Your task to perform on an android device: toggle airplane mode Image 0: 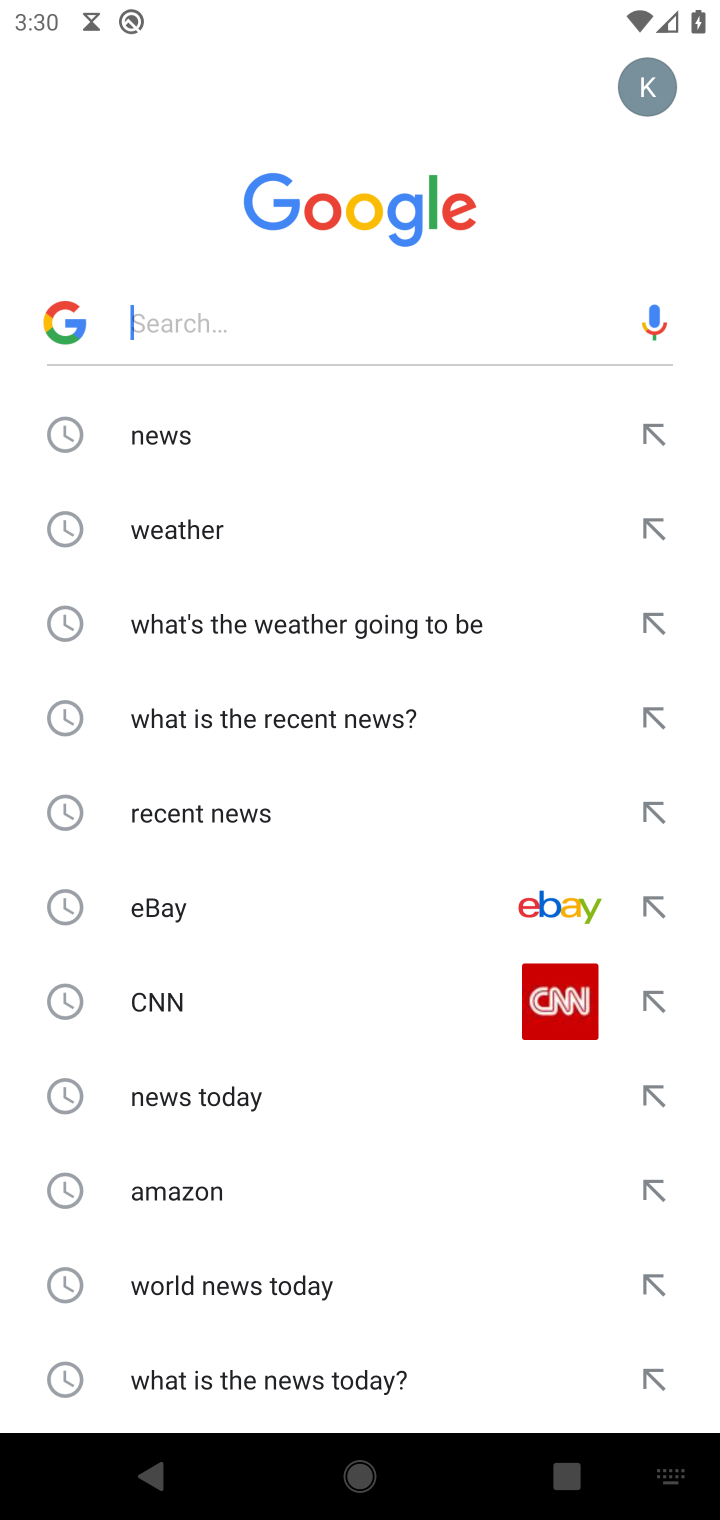
Step 0: drag from (507, 27) to (618, 1120)
Your task to perform on an android device: toggle airplane mode Image 1: 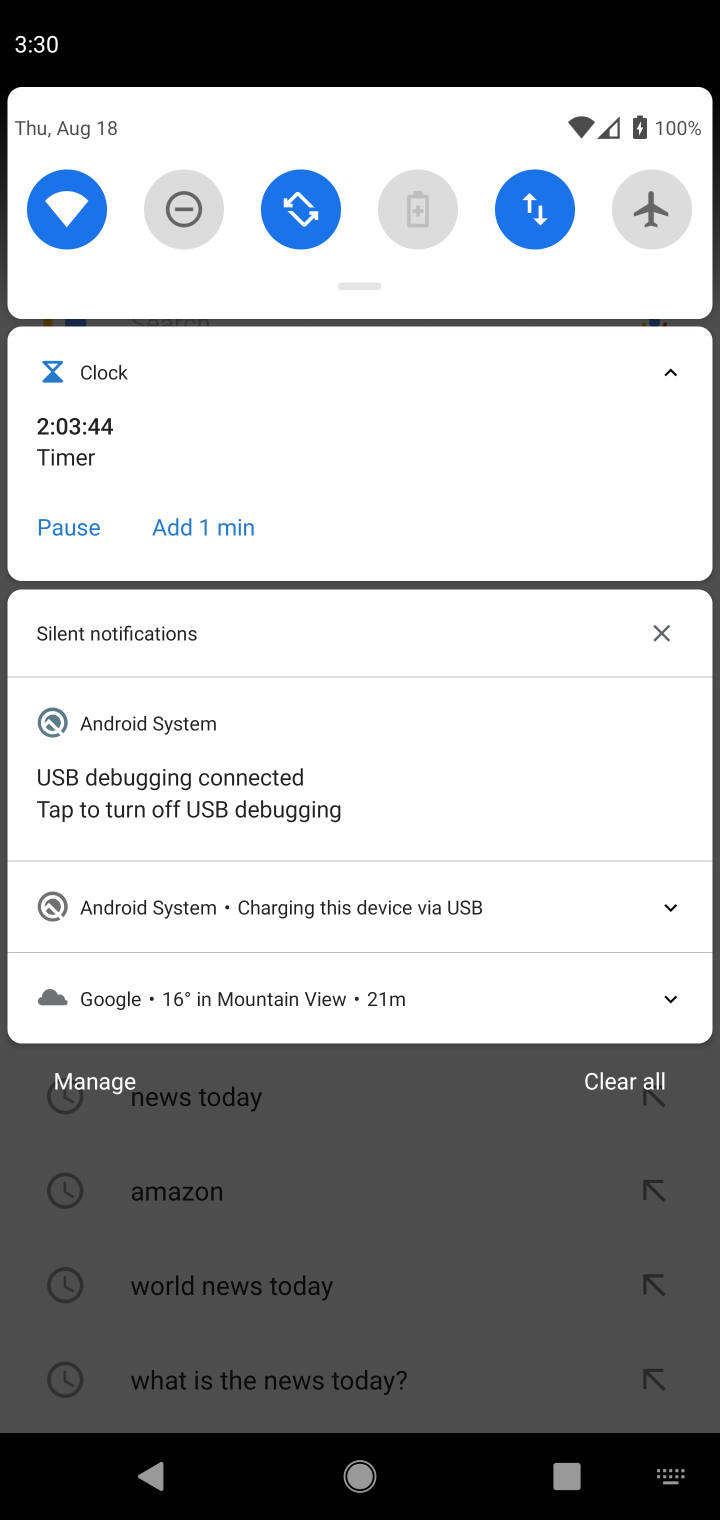
Step 1: click (657, 185)
Your task to perform on an android device: toggle airplane mode Image 2: 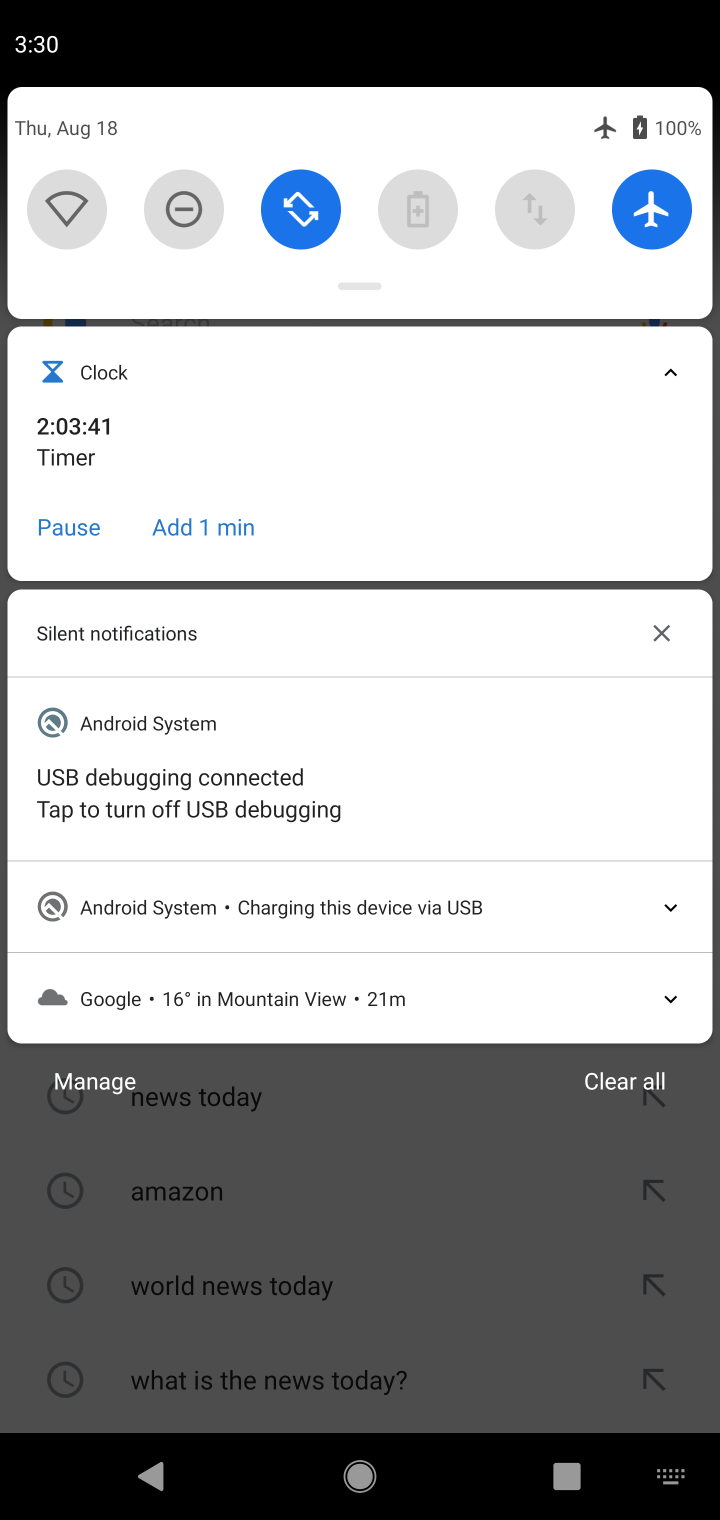
Step 2: task complete